Your task to perform on an android device: Open Google Maps and go to "Timeline" Image 0: 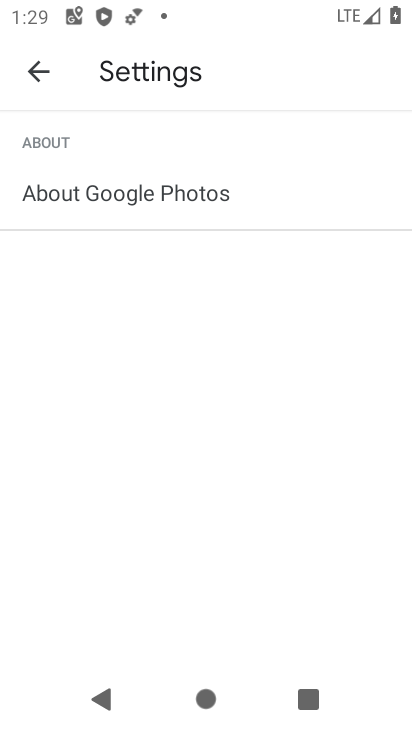
Step 0: press home button
Your task to perform on an android device: Open Google Maps and go to "Timeline" Image 1: 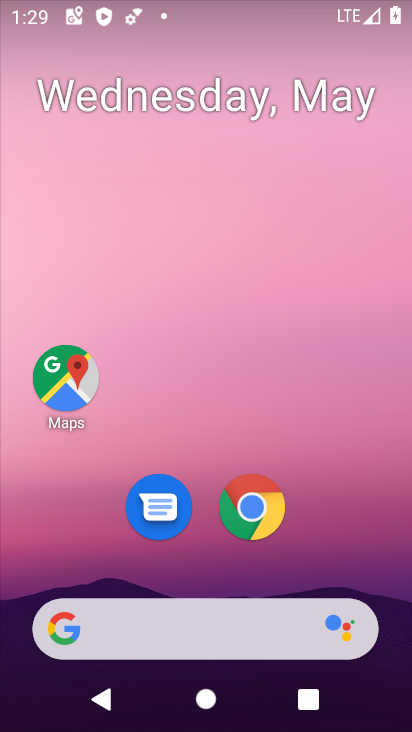
Step 1: click (83, 386)
Your task to perform on an android device: Open Google Maps and go to "Timeline" Image 2: 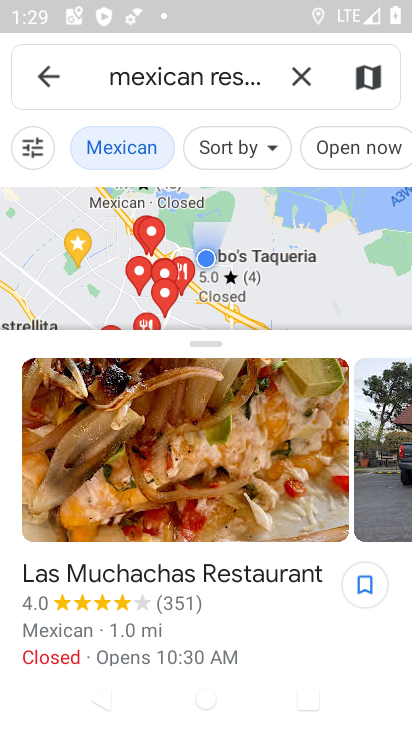
Step 2: click (46, 89)
Your task to perform on an android device: Open Google Maps and go to "Timeline" Image 3: 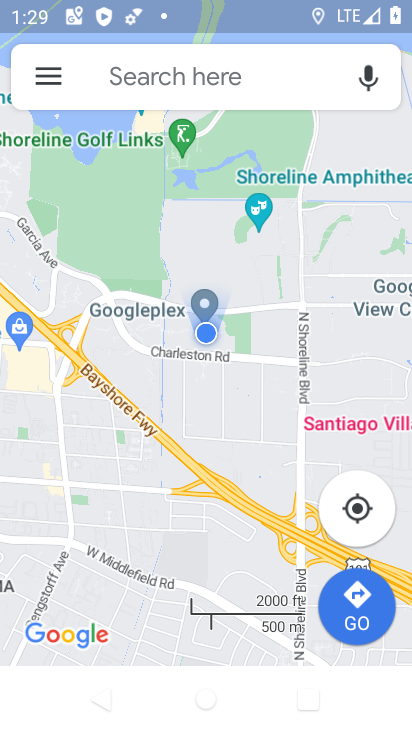
Step 3: click (46, 89)
Your task to perform on an android device: Open Google Maps and go to "Timeline" Image 4: 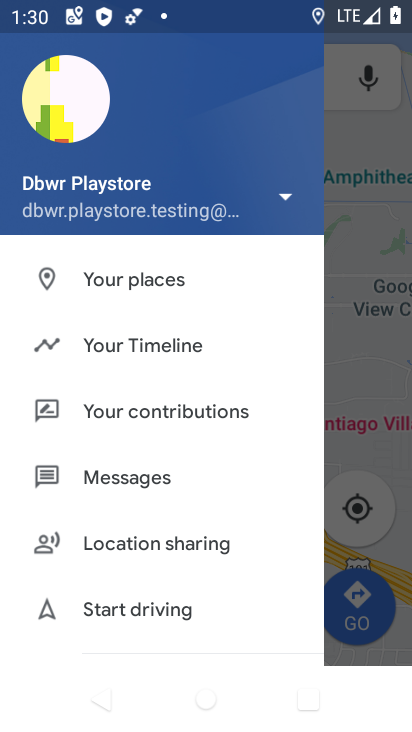
Step 4: click (177, 355)
Your task to perform on an android device: Open Google Maps and go to "Timeline" Image 5: 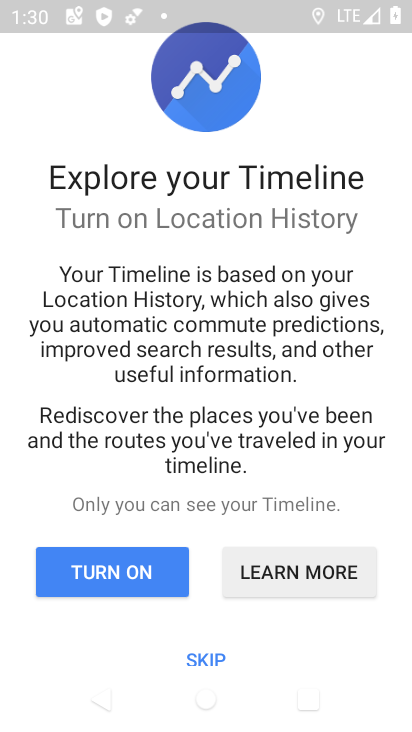
Step 5: click (217, 664)
Your task to perform on an android device: Open Google Maps and go to "Timeline" Image 6: 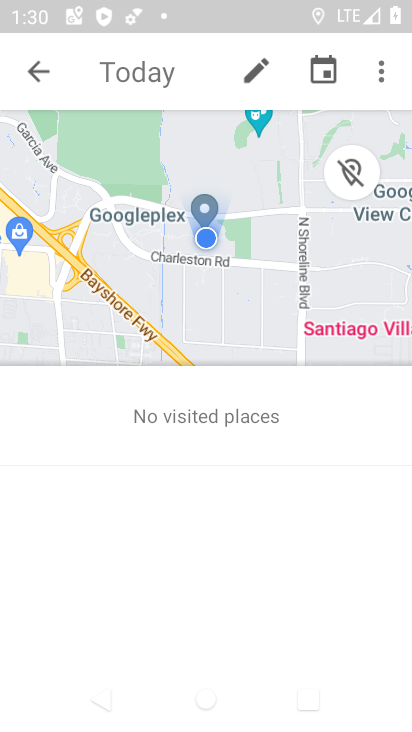
Step 6: task complete